Your task to perform on an android device: What's on my calendar tomorrow? Image 0: 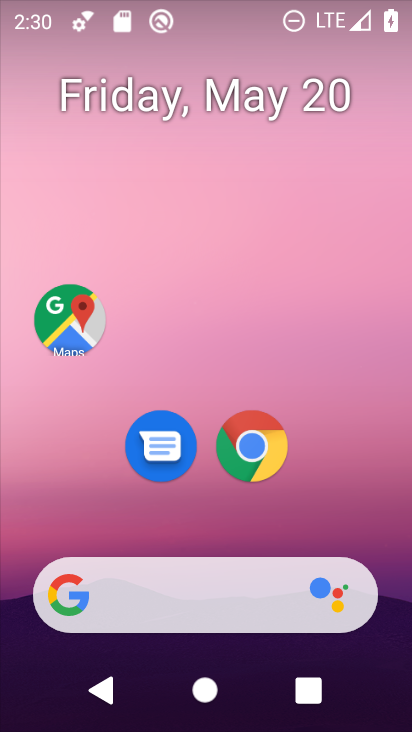
Step 0: drag from (380, 549) to (389, 8)
Your task to perform on an android device: What's on my calendar tomorrow? Image 1: 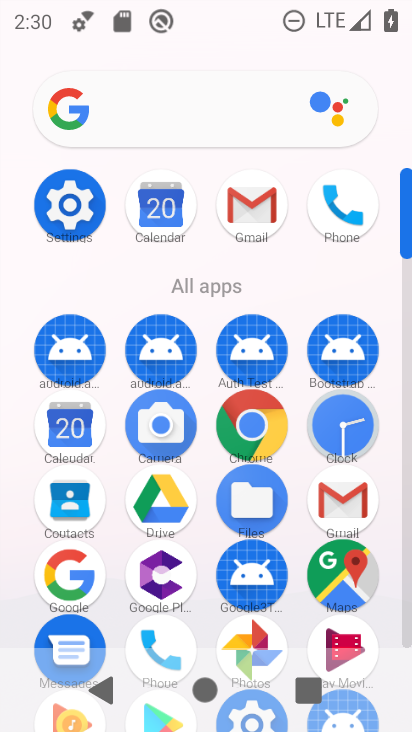
Step 1: click (144, 212)
Your task to perform on an android device: What's on my calendar tomorrow? Image 2: 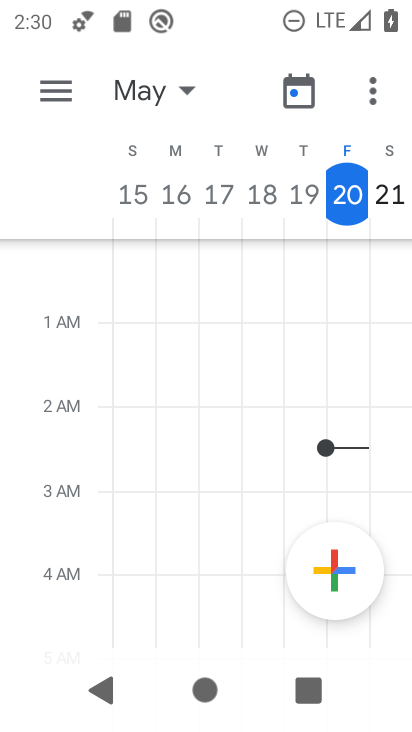
Step 2: click (51, 84)
Your task to perform on an android device: What's on my calendar tomorrow? Image 3: 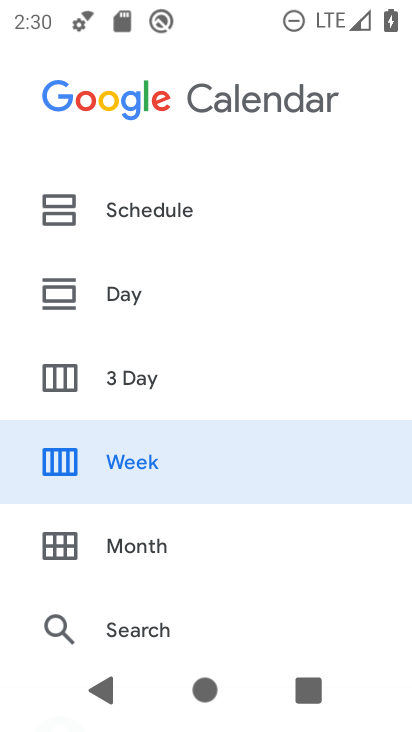
Step 3: click (58, 205)
Your task to perform on an android device: What's on my calendar tomorrow? Image 4: 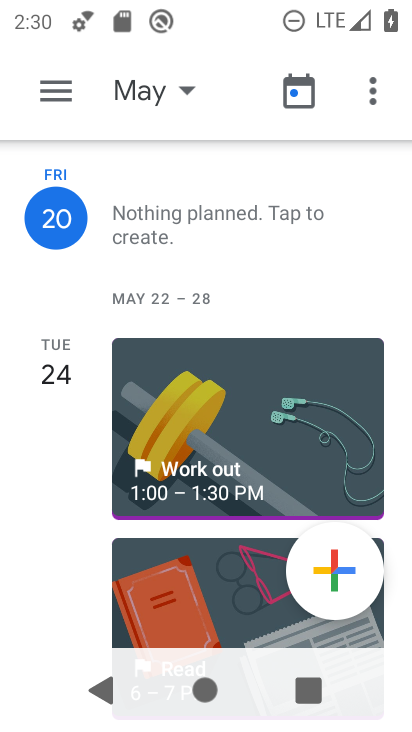
Step 4: click (298, 90)
Your task to perform on an android device: What's on my calendar tomorrow? Image 5: 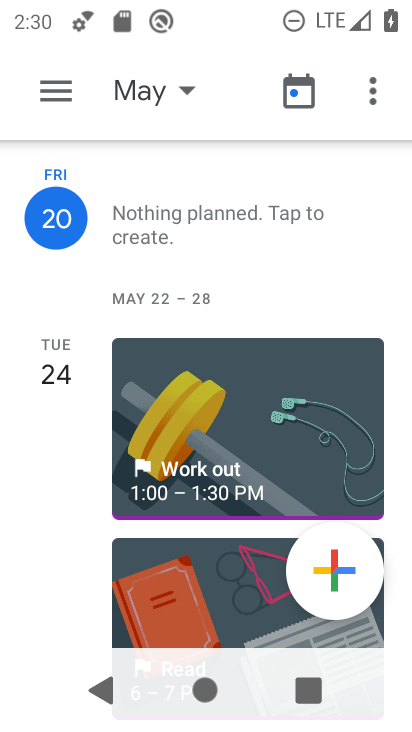
Step 5: click (298, 89)
Your task to perform on an android device: What's on my calendar tomorrow? Image 6: 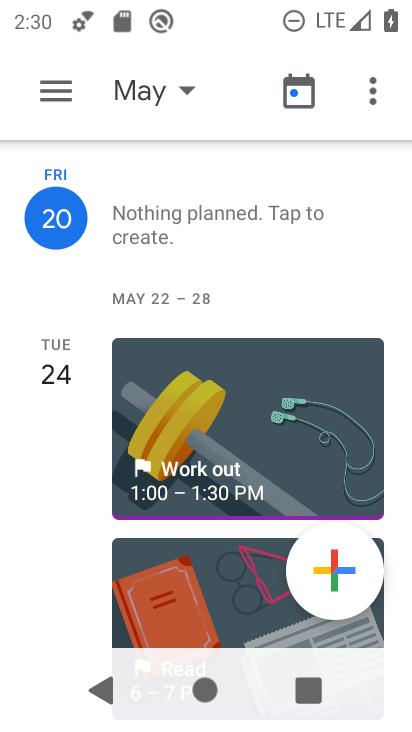
Step 6: click (188, 86)
Your task to perform on an android device: What's on my calendar tomorrow? Image 7: 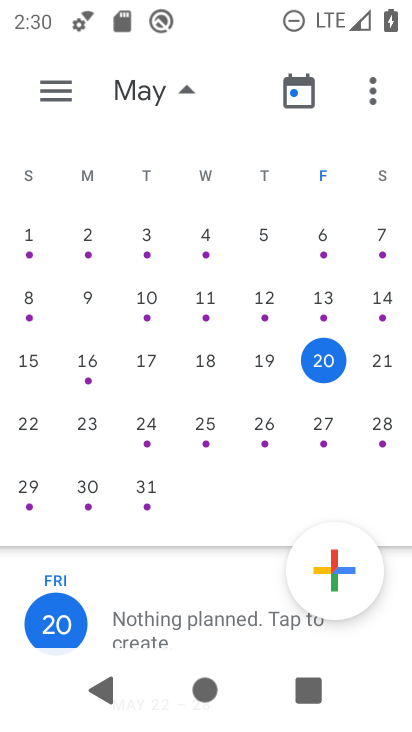
Step 7: click (384, 361)
Your task to perform on an android device: What's on my calendar tomorrow? Image 8: 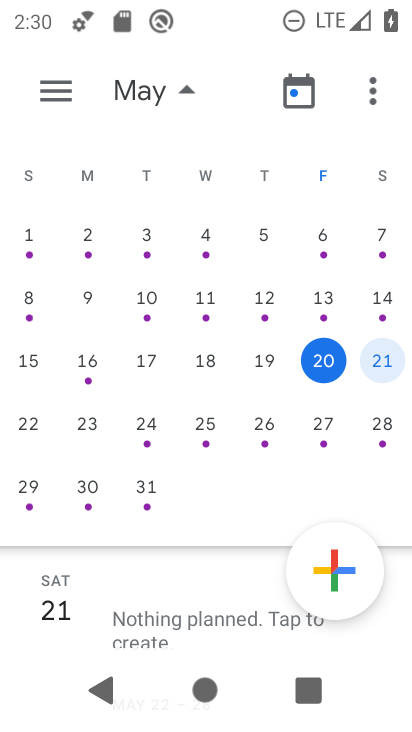
Step 8: drag from (203, 590) to (190, 118)
Your task to perform on an android device: What's on my calendar tomorrow? Image 9: 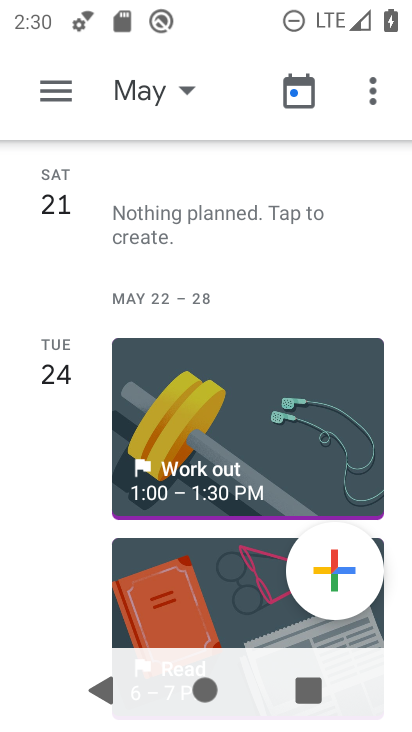
Step 9: click (144, 217)
Your task to perform on an android device: What's on my calendar tomorrow? Image 10: 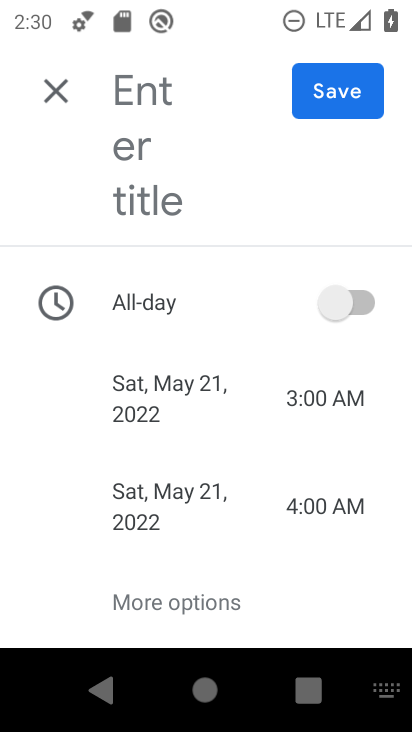
Step 10: task complete